Your task to perform on an android device: Show me productivity apps on the Play Store Image 0: 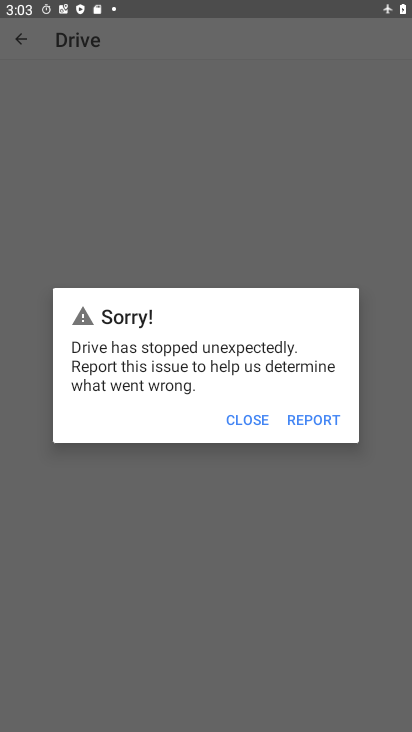
Step 0: press home button
Your task to perform on an android device: Show me productivity apps on the Play Store Image 1: 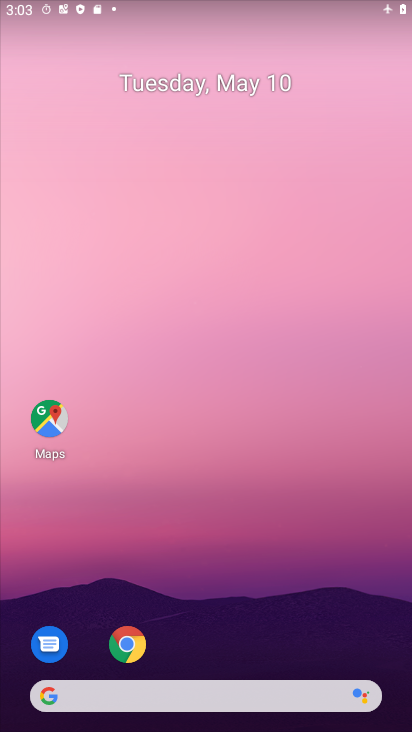
Step 1: drag from (252, 599) to (207, 113)
Your task to perform on an android device: Show me productivity apps on the Play Store Image 2: 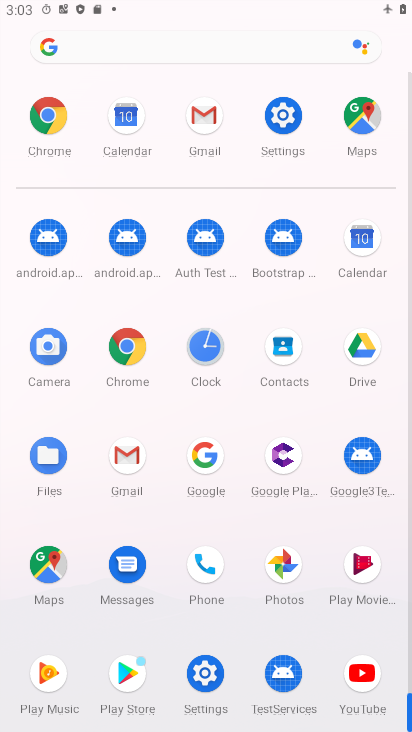
Step 2: click (135, 668)
Your task to perform on an android device: Show me productivity apps on the Play Store Image 3: 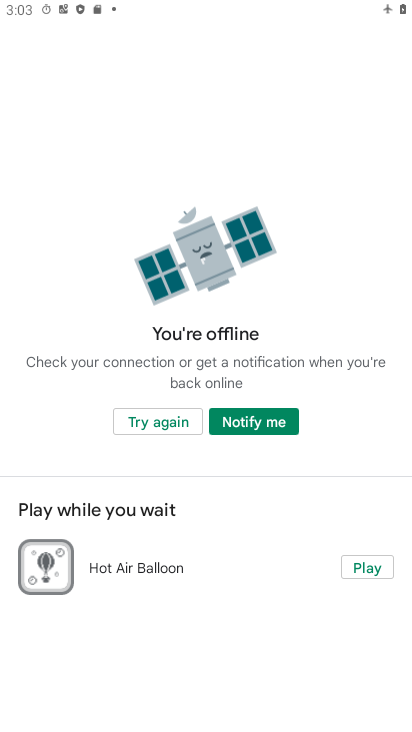
Step 3: task complete